Your task to perform on an android device: turn smart compose on in the gmail app Image 0: 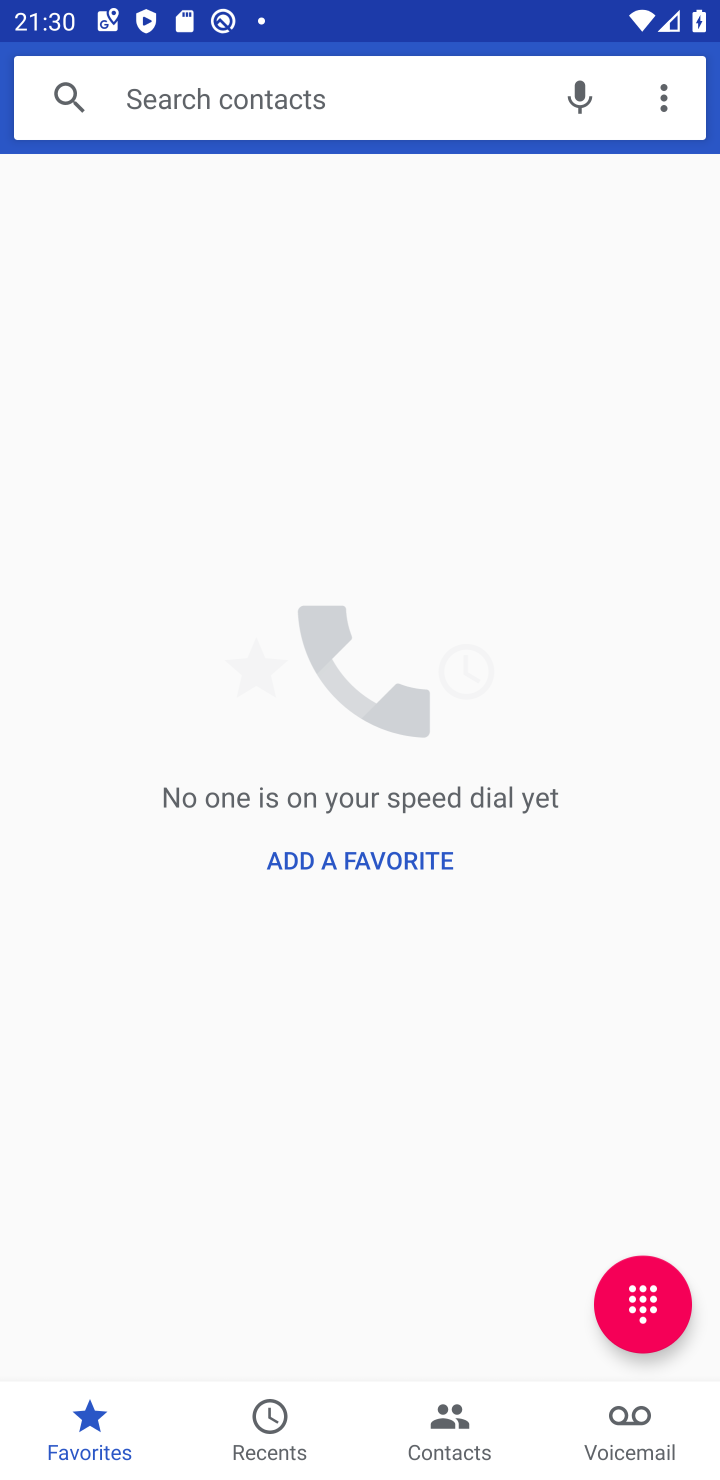
Step 0: press home button
Your task to perform on an android device: turn smart compose on in the gmail app Image 1: 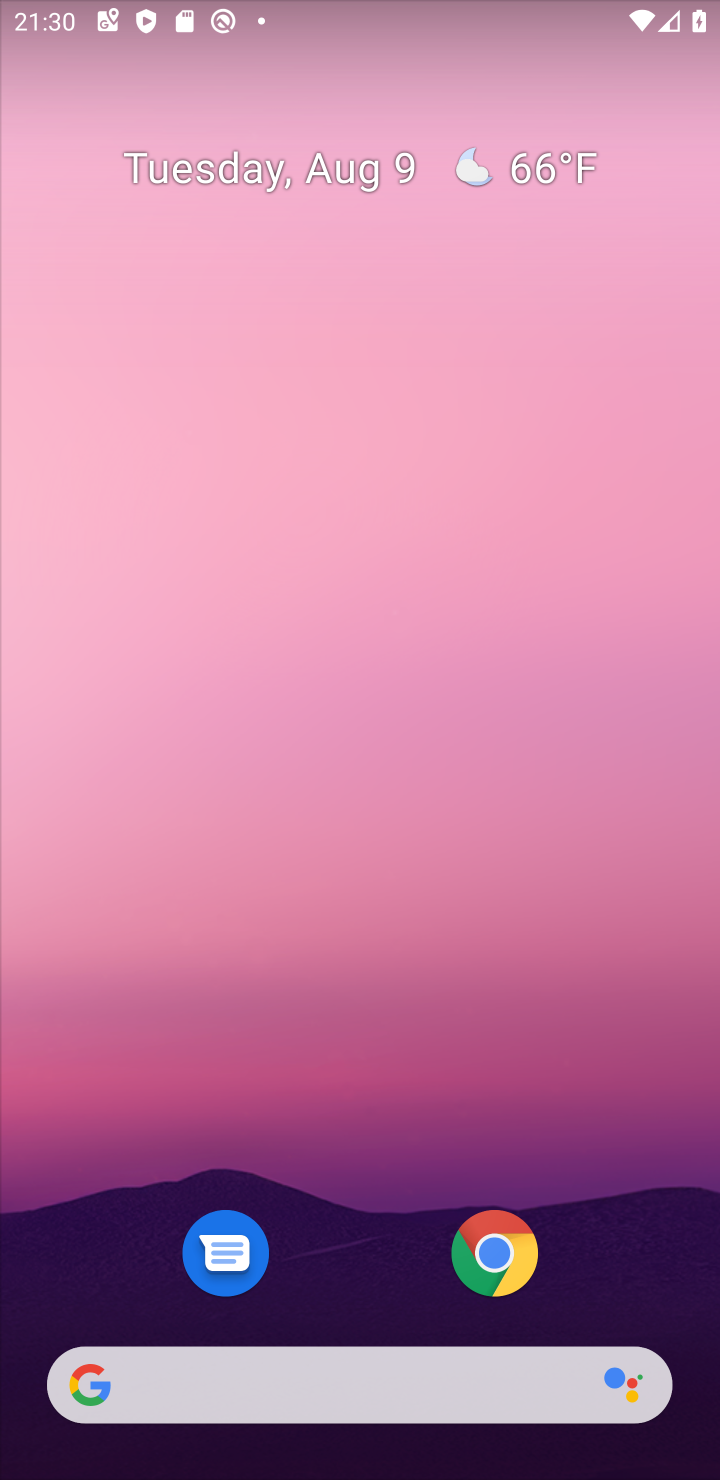
Step 1: drag from (363, 1294) to (304, 165)
Your task to perform on an android device: turn smart compose on in the gmail app Image 2: 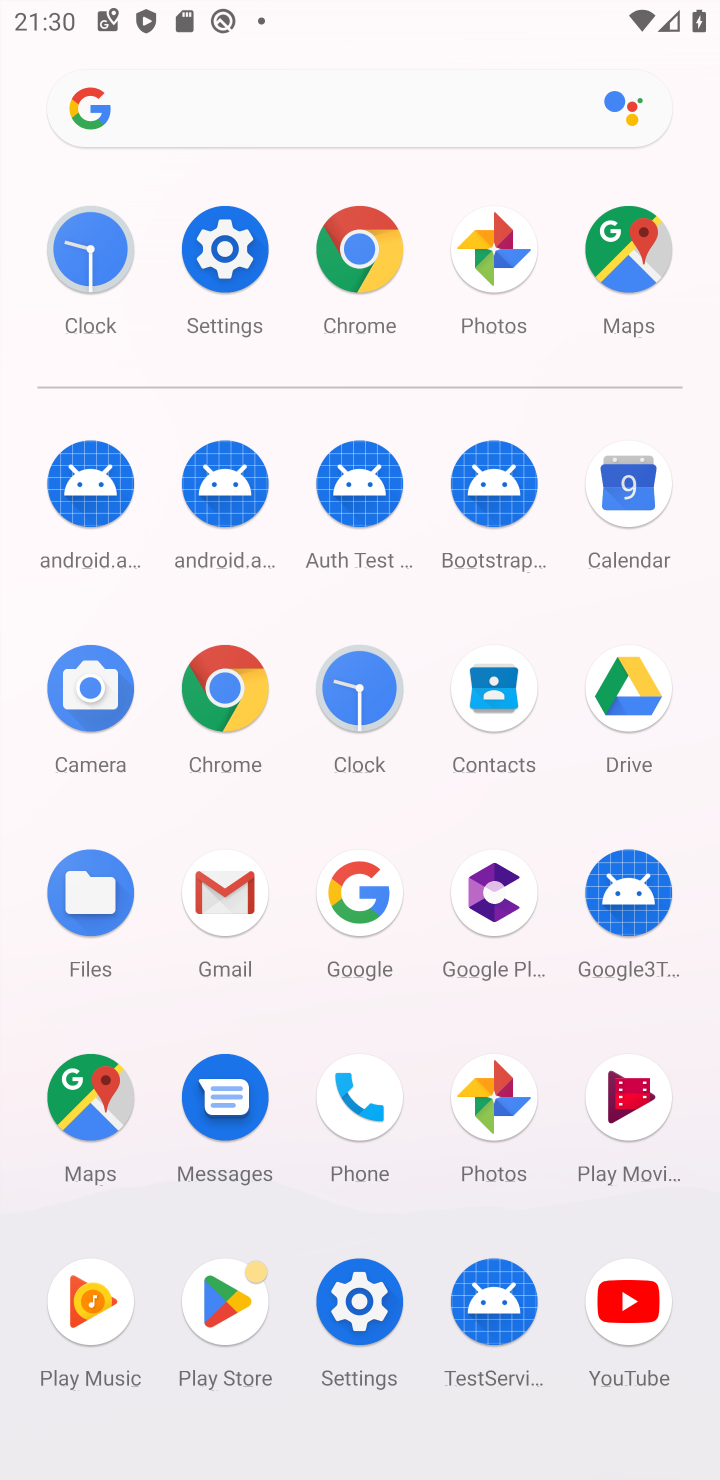
Step 2: click (231, 891)
Your task to perform on an android device: turn smart compose on in the gmail app Image 3: 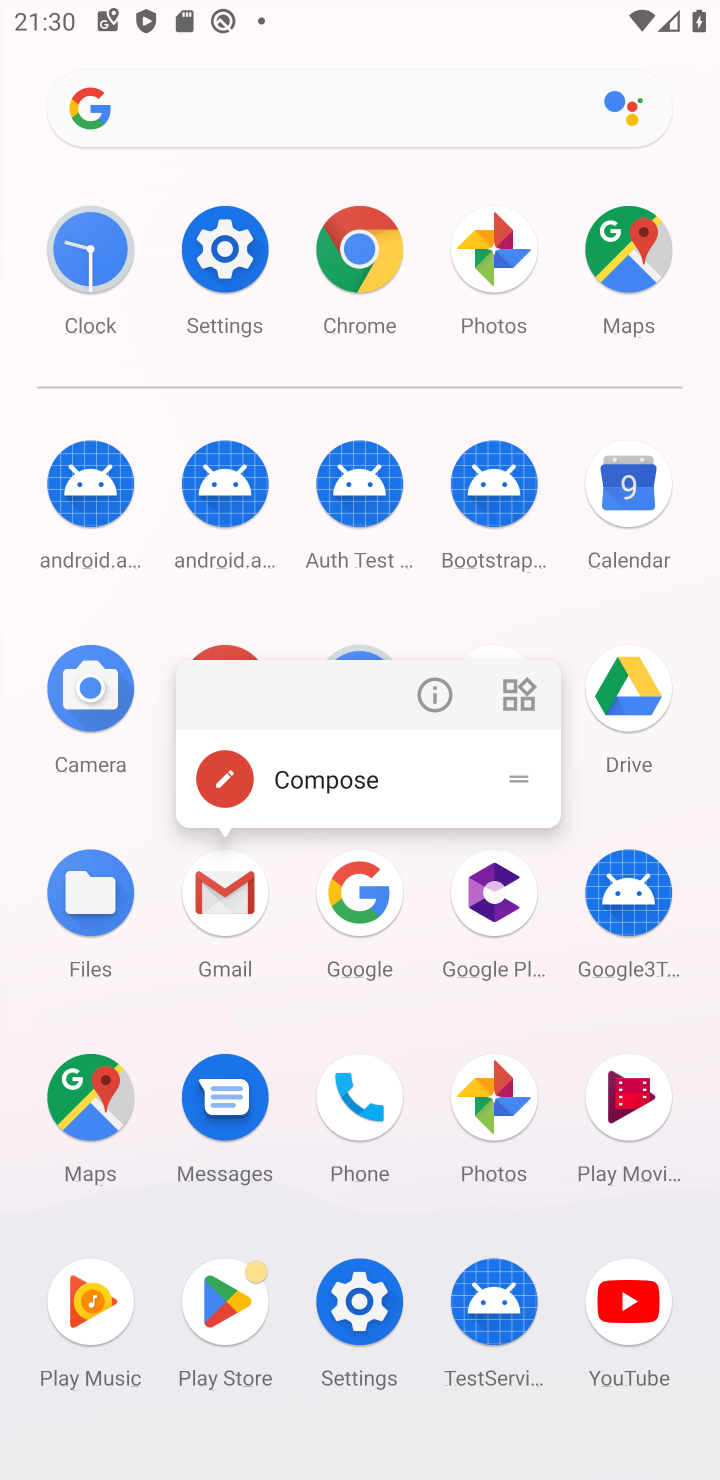
Step 3: click (231, 891)
Your task to perform on an android device: turn smart compose on in the gmail app Image 4: 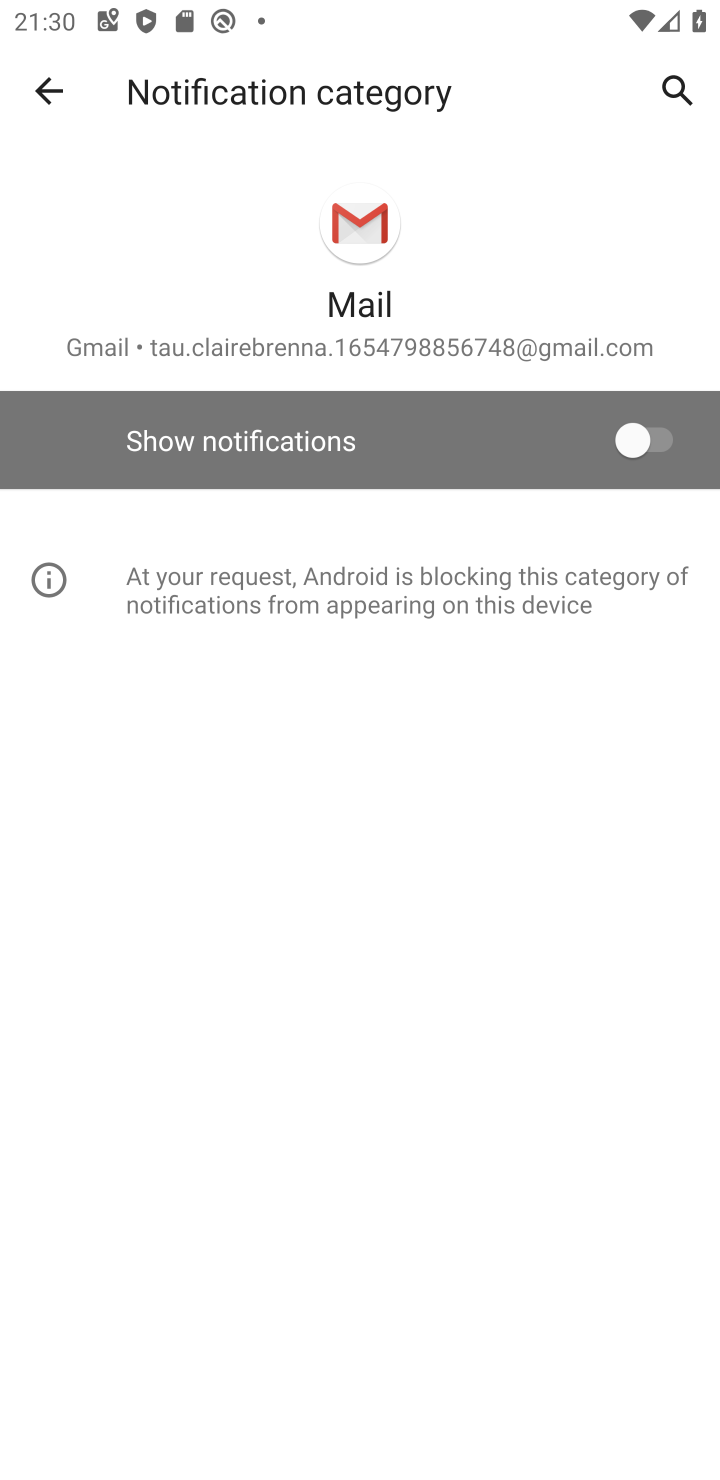
Step 4: click (42, 83)
Your task to perform on an android device: turn smart compose on in the gmail app Image 5: 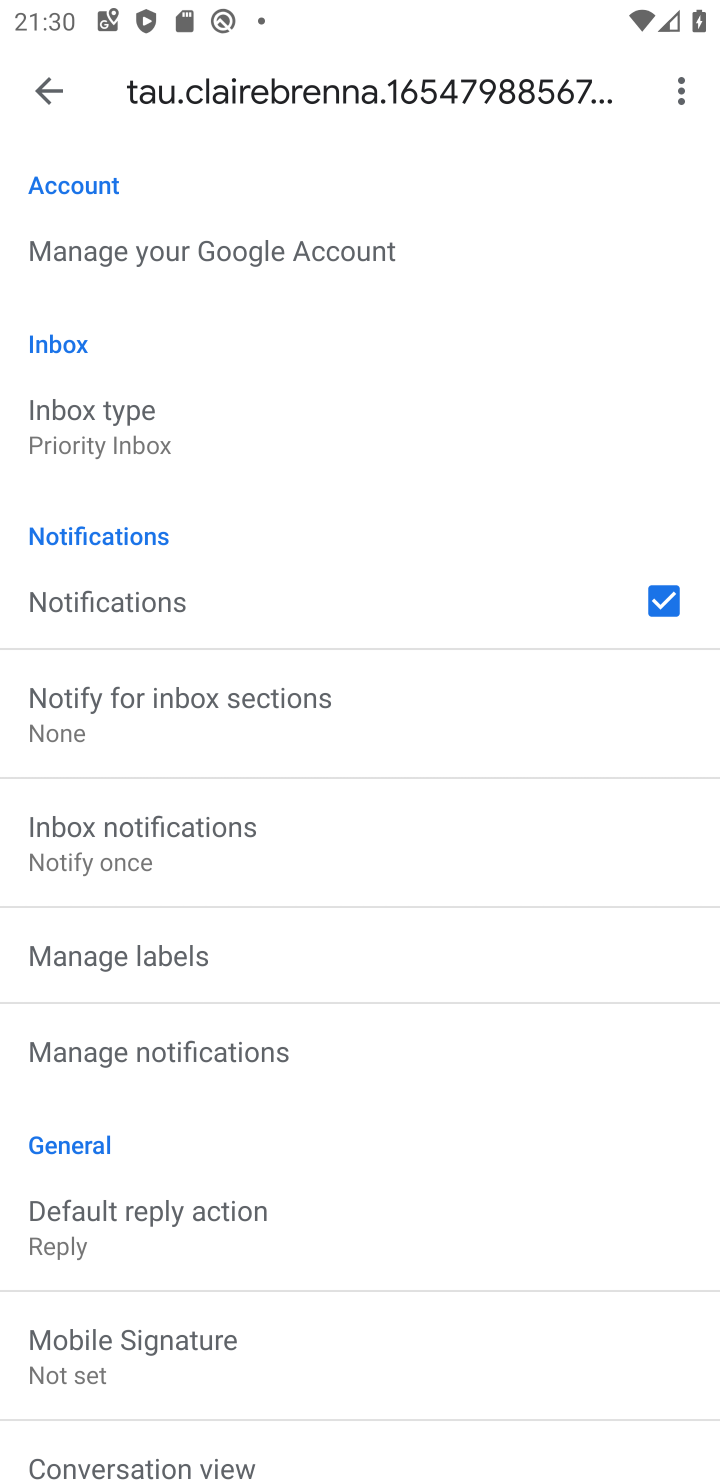
Step 5: task complete